Your task to perform on an android device: Clear the cart on target. Add bose soundlink mini to the cart on target, then select checkout. Image 0: 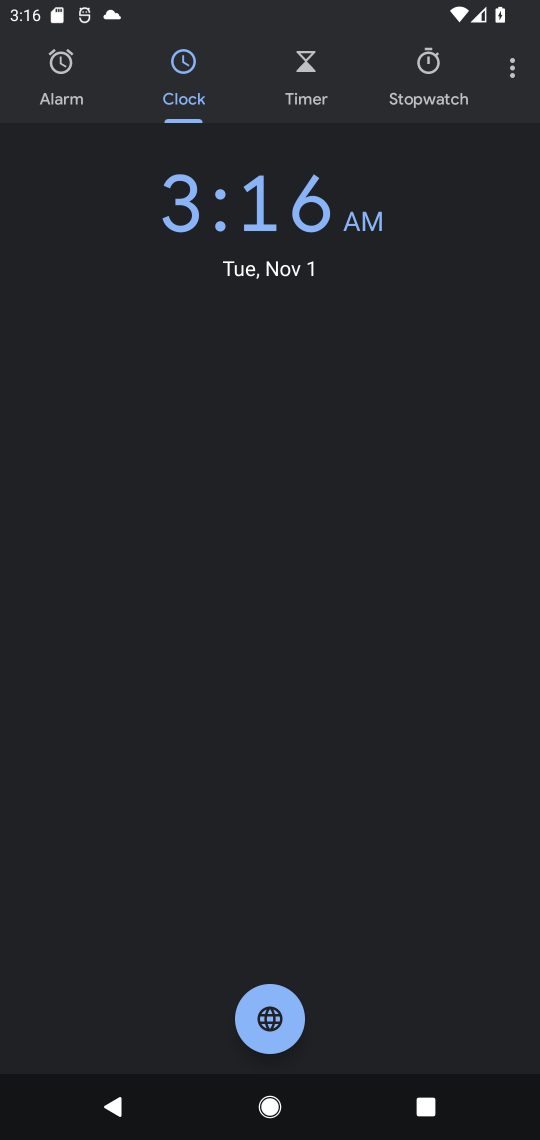
Step 0: press home button
Your task to perform on an android device: Clear the cart on target. Add bose soundlink mini to the cart on target, then select checkout. Image 1: 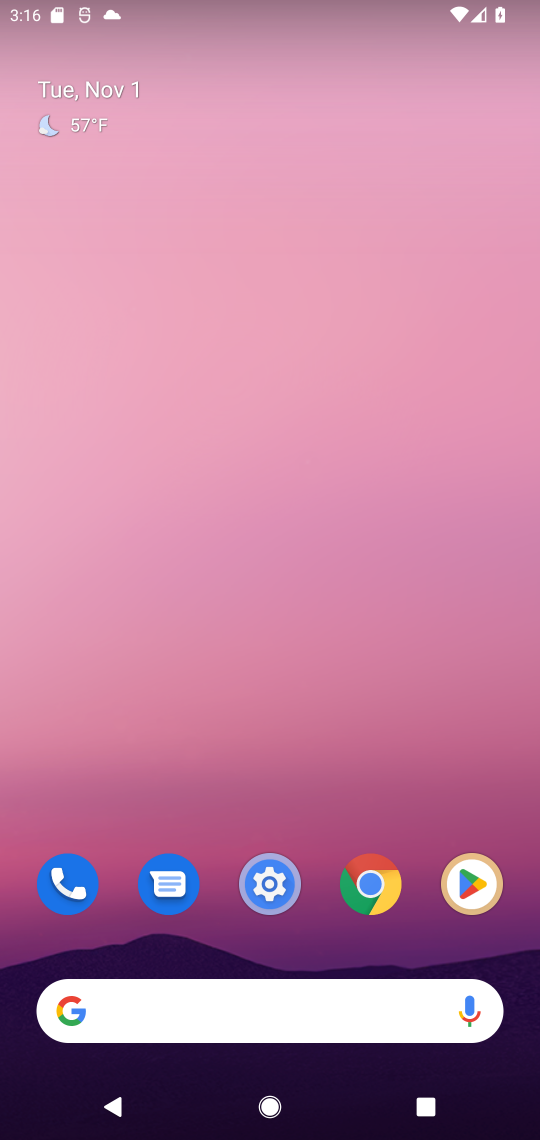
Step 1: click (103, 1011)
Your task to perform on an android device: Clear the cart on target. Add bose soundlink mini to the cart on target, then select checkout. Image 2: 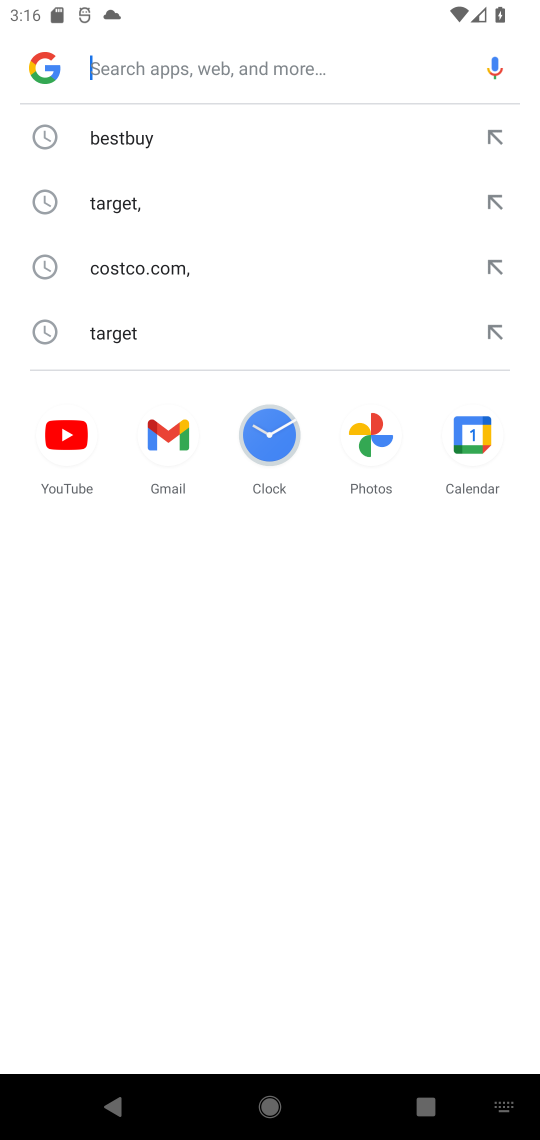
Step 2: type "target"
Your task to perform on an android device: Clear the cart on target. Add bose soundlink mini to the cart on target, then select checkout. Image 3: 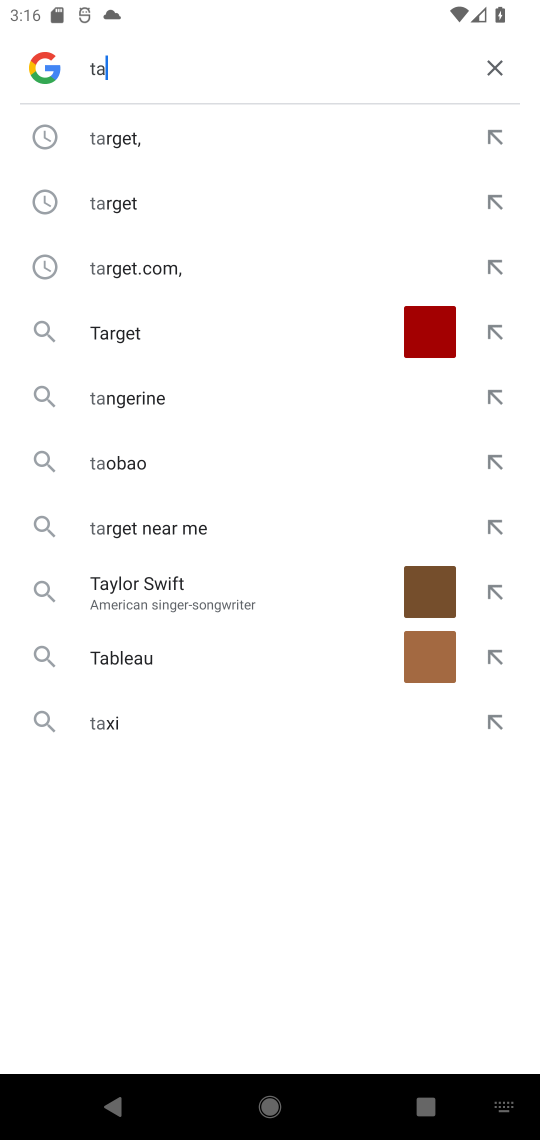
Step 3: press enter
Your task to perform on an android device: Clear the cart on target. Add bose soundlink mini to the cart on target, then select checkout. Image 4: 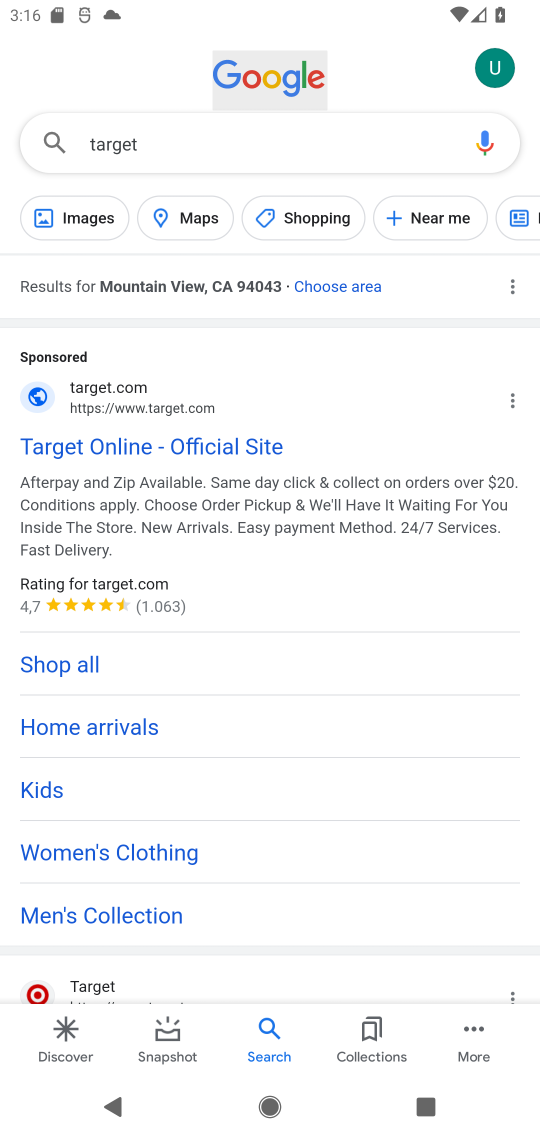
Step 4: click (110, 447)
Your task to perform on an android device: Clear the cart on target. Add bose soundlink mini to the cart on target, then select checkout. Image 5: 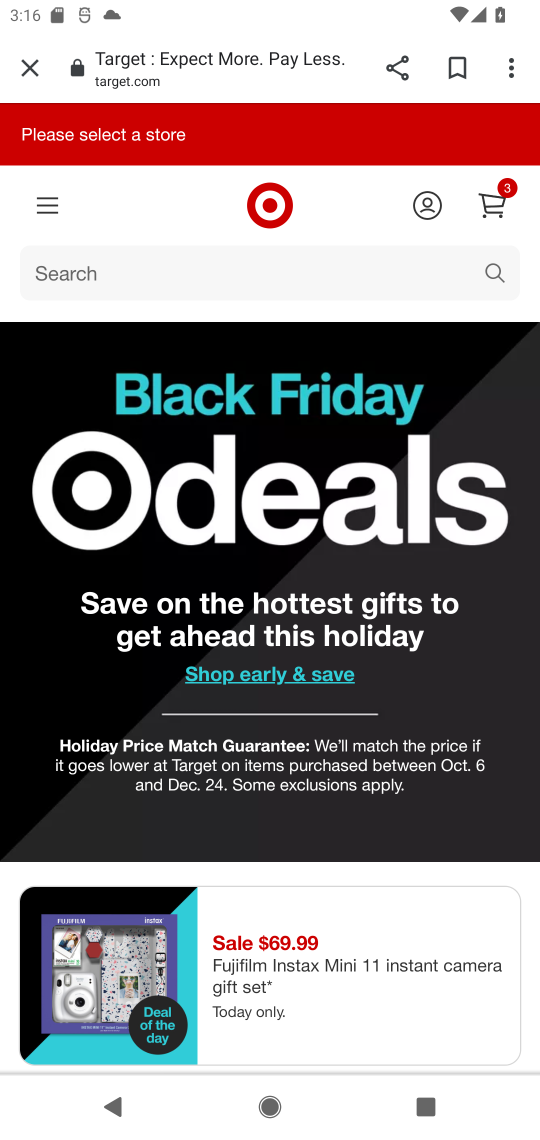
Step 5: click (70, 264)
Your task to perform on an android device: Clear the cart on target. Add bose soundlink mini to the cart on target, then select checkout. Image 6: 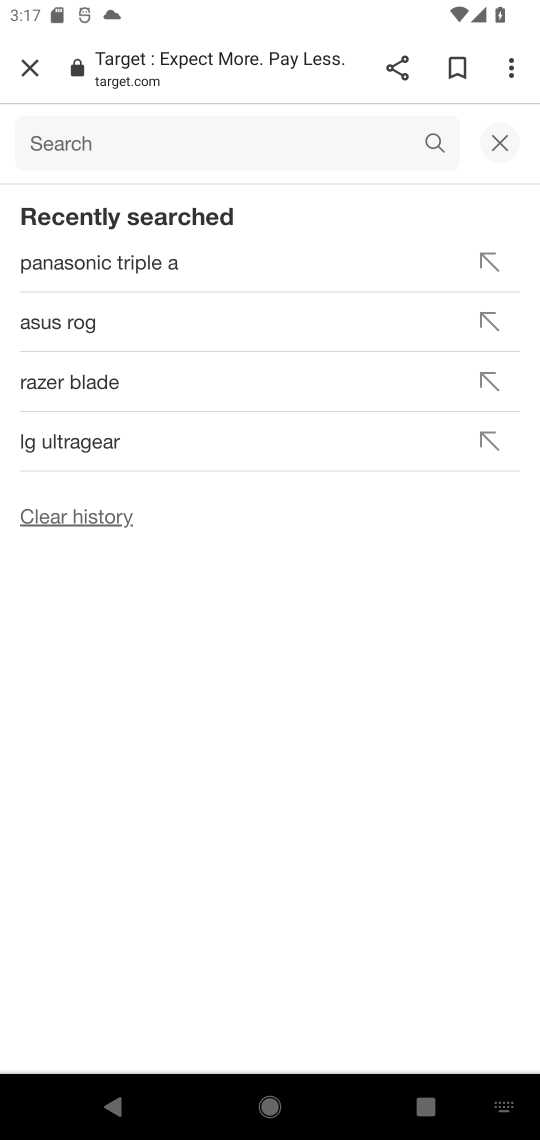
Step 6: click (497, 134)
Your task to perform on an android device: Clear the cart on target. Add bose soundlink mini to the cart on target, then select checkout. Image 7: 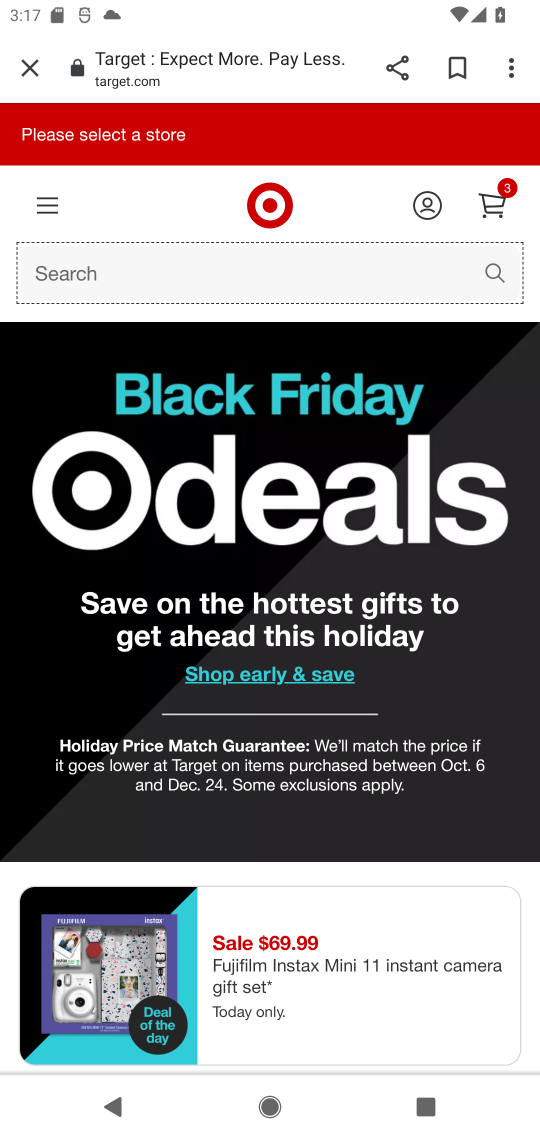
Step 7: click (495, 193)
Your task to perform on an android device: Clear the cart on target. Add bose soundlink mini to the cart on target, then select checkout. Image 8: 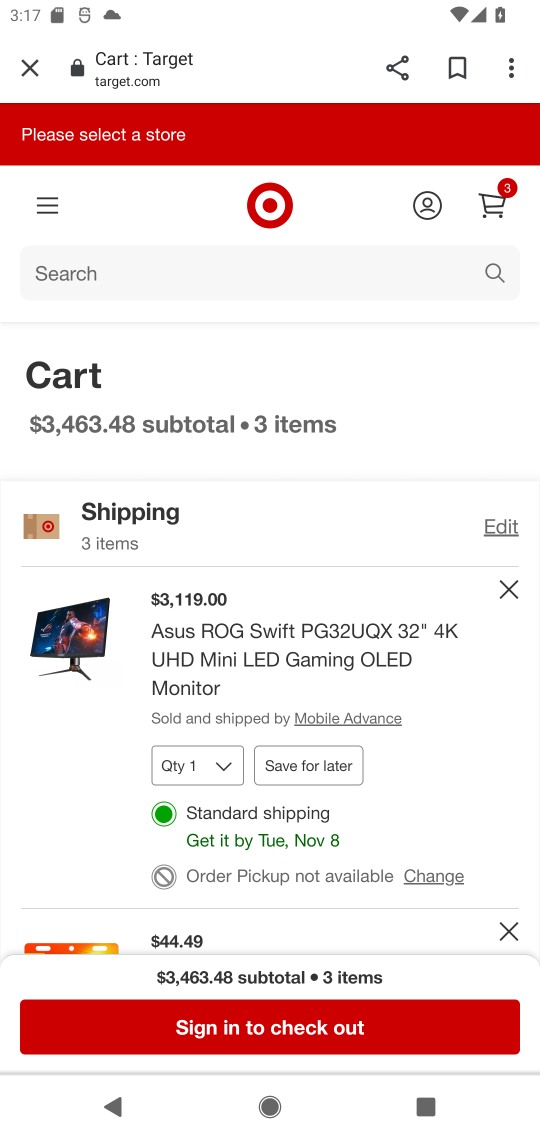
Step 8: click (509, 583)
Your task to perform on an android device: Clear the cart on target. Add bose soundlink mini to the cart on target, then select checkout. Image 9: 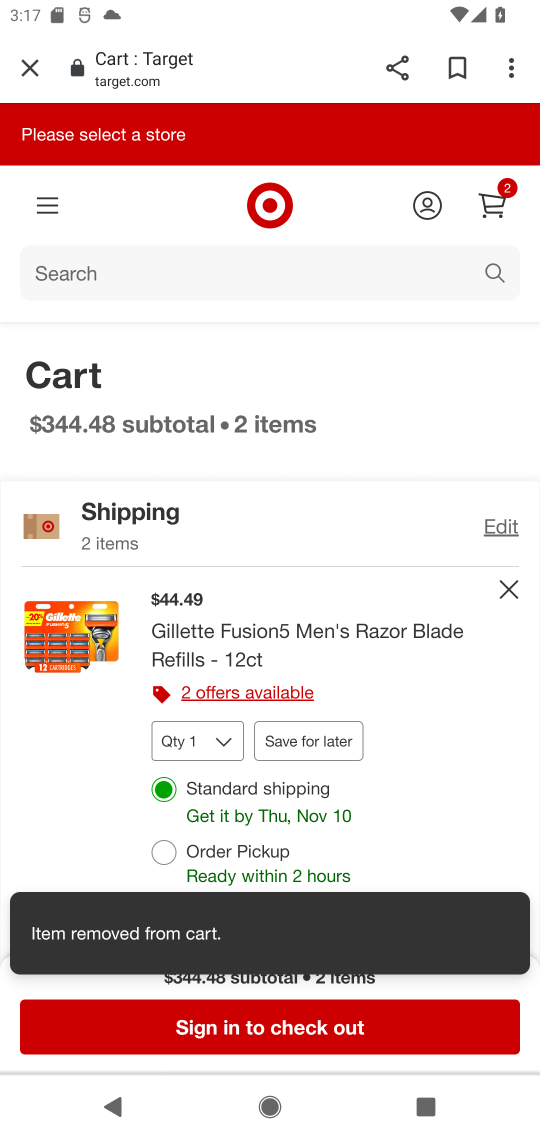
Step 9: click (509, 583)
Your task to perform on an android device: Clear the cart on target. Add bose soundlink mini to the cart on target, then select checkout. Image 10: 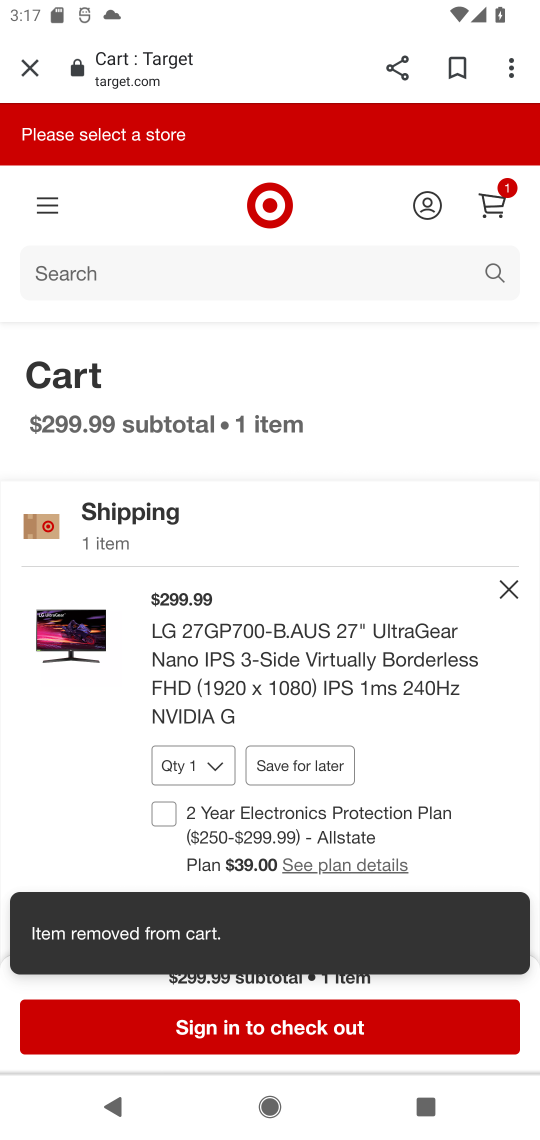
Step 10: click (509, 583)
Your task to perform on an android device: Clear the cart on target. Add bose soundlink mini to the cart on target, then select checkout. Image 11: 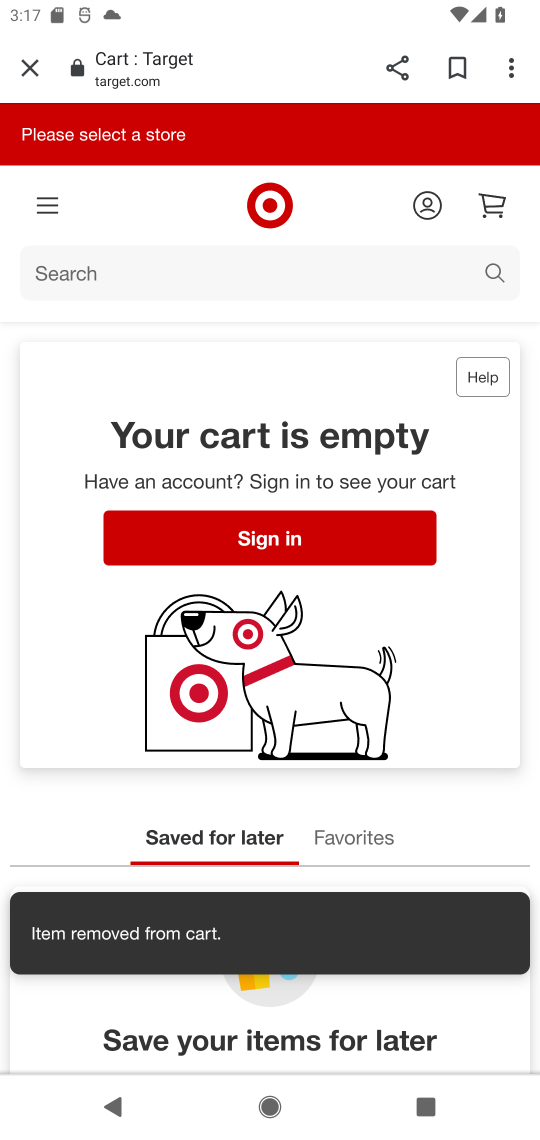
Step 11: click (139, 268)
Your task to perform on an android device: Clear the cart on target. Add bose soundlink mini to the cart on target, then select checkout. Image 12: 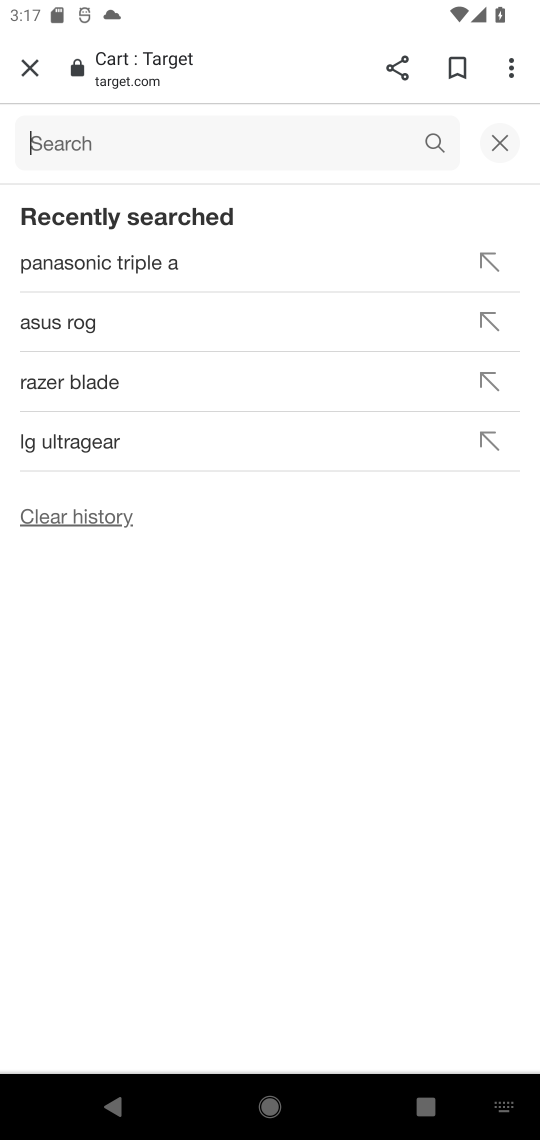
Step 12: type "bose soundlink mini "
Your task to perform on an android device: Clear the cart on target. Add bose soundlink mini to the cart on target, then select checkout. Image 13: 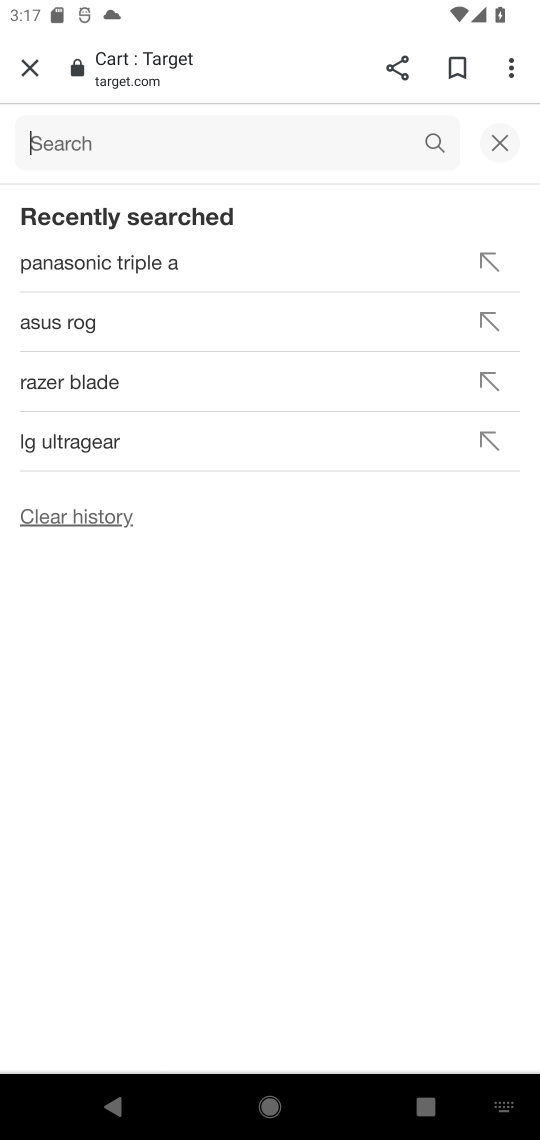
Step 13: press enter
Your task to perform on an android device: Clear the cart on target. Add bose soundlink mini to the cart on target, then select checkout. Image 14: 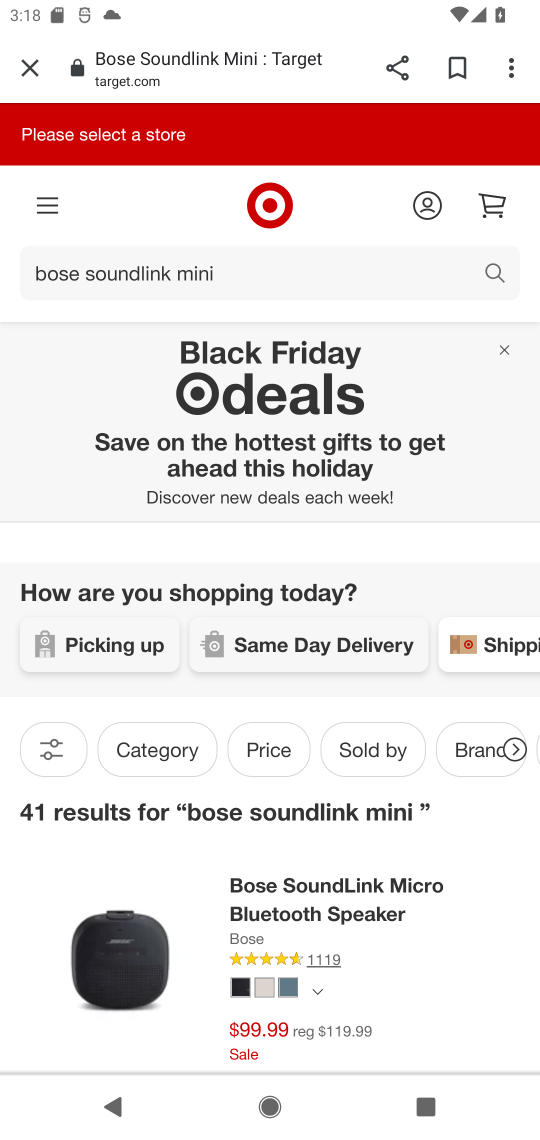
Step 14: drag from (352, 943) to (319, 583)
Your task to perform on an android device: Clear the cart on target. Add bose soundlink mini to the cart on target, then select checkout. Image 15: 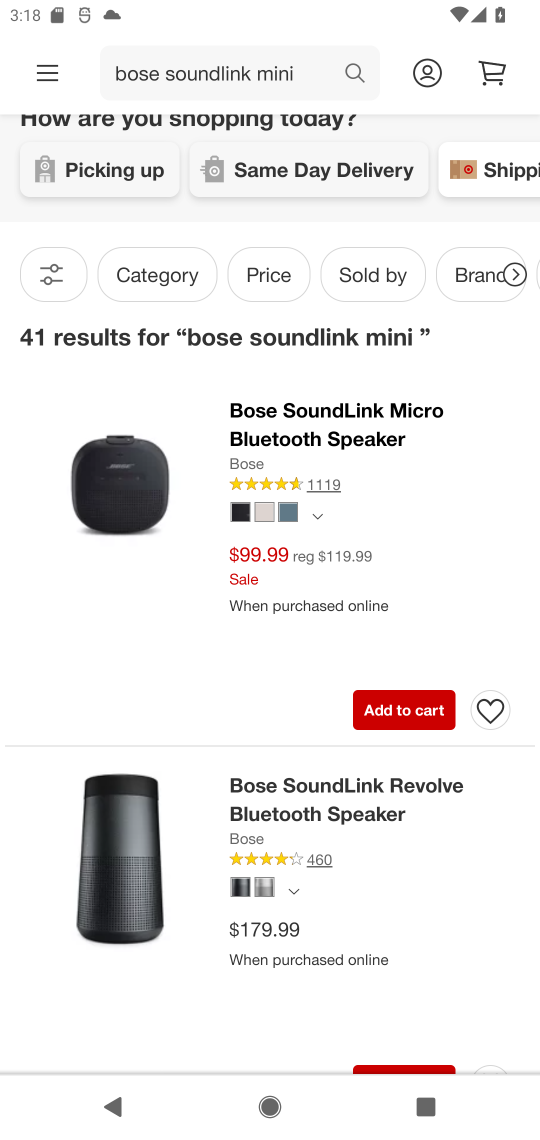
Step 15: click (386, 710)
Your task to perform on an android device: Clear the cart on target. Add bose soundlink mini to the cart on target, then select checkout. Image 16: 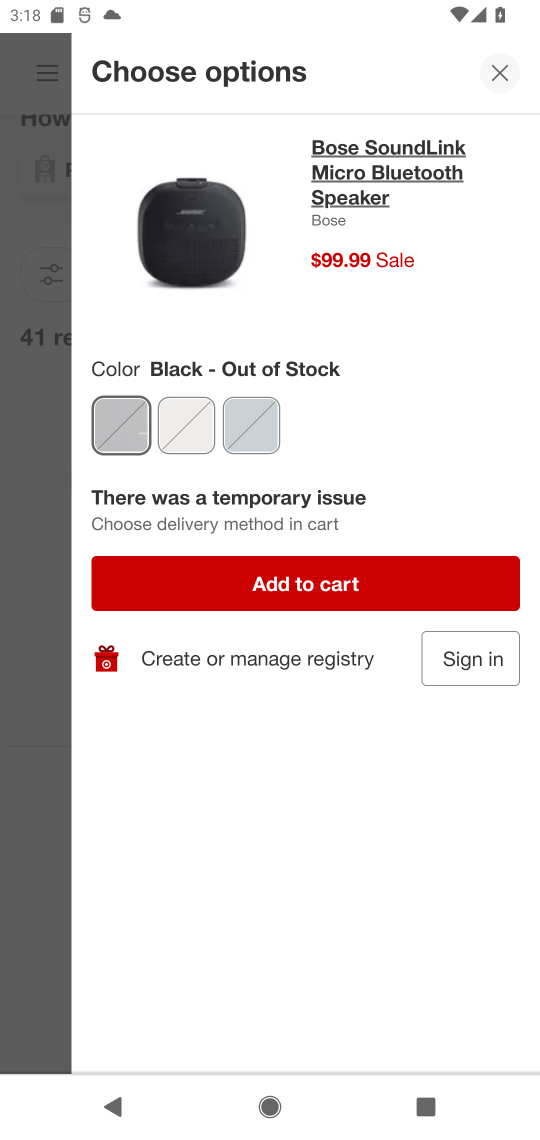
Step 16: click (332, 588)
Your task to perform on an android device: Clear the cart on target. Add bose soundlink mini to the cart on target, then select checkout. Image 17: 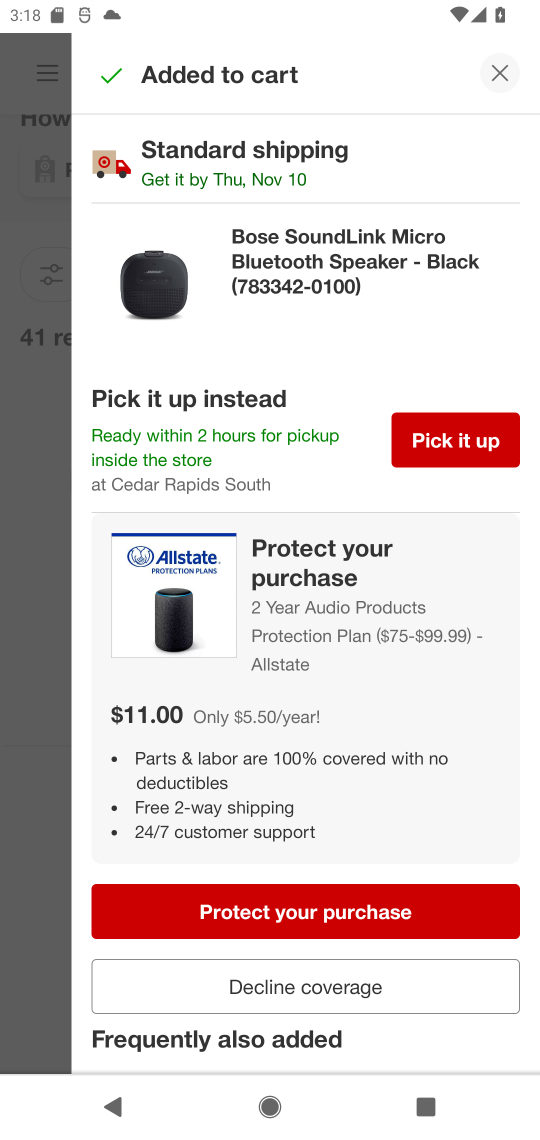
Step 17: click (382, 915)
Your task to perform on an android device: Clear the cart on target. Add bose soundlink mini to the cart on target, then select checkout. Image 18: 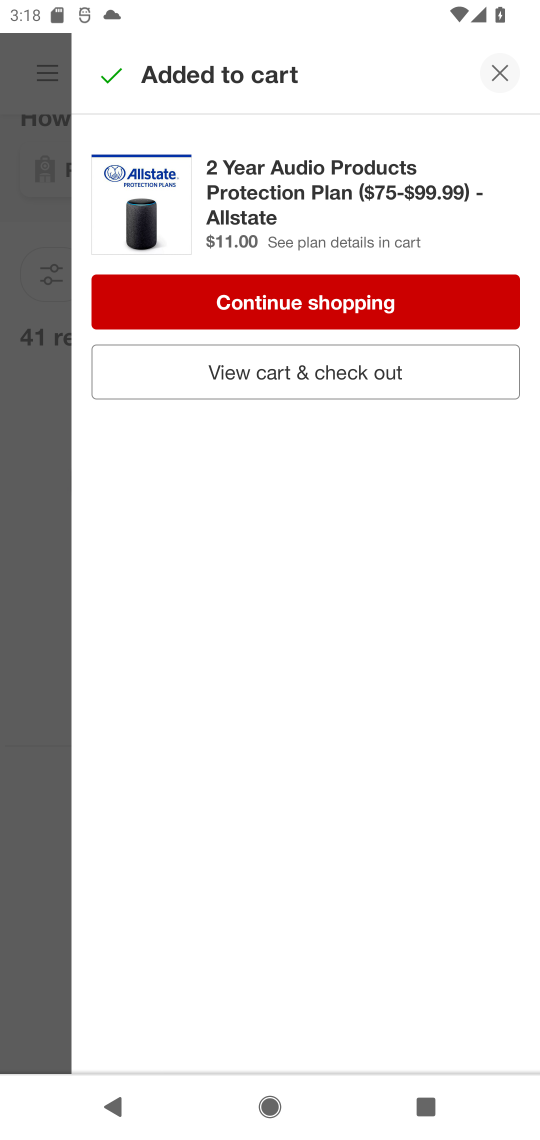
Step 18: click (357, 373)
Your task to perform on an android device: Clear the cart on target. Add bose soundlink mini to the cart on target, then select checkout. Image 19: 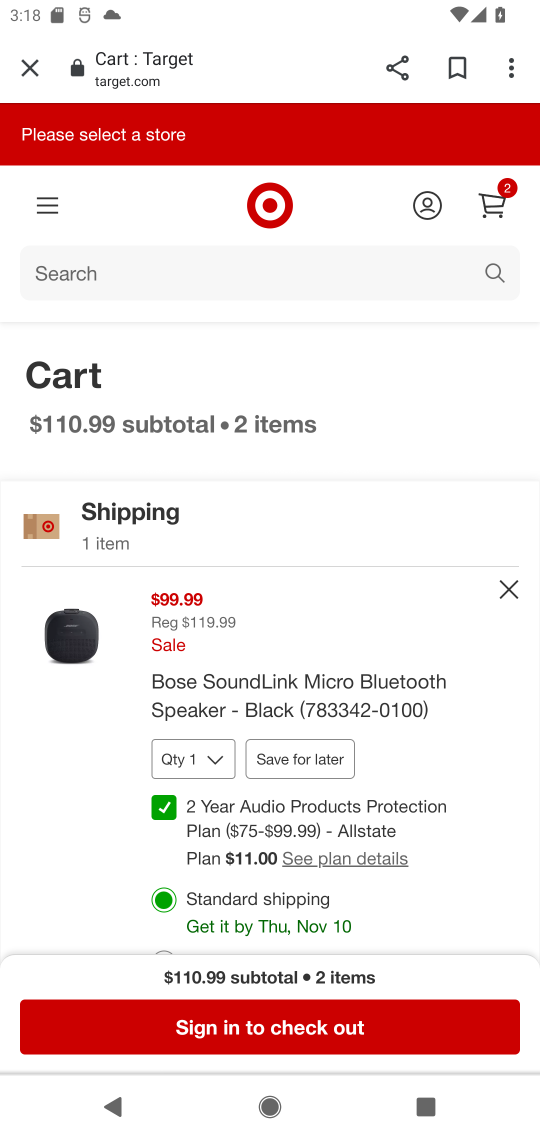
Step 19: click (356, 1027)
Your task to perform on an android device: Clear the cart on target. Add bose soundlink mini to the cart on target, then select checkout. Image 20: 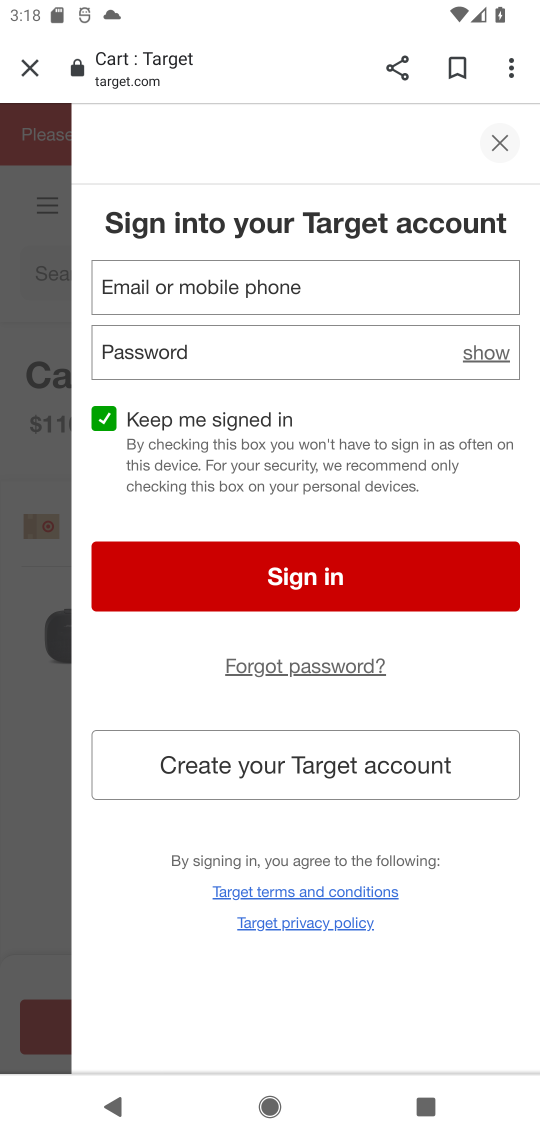
Step 20: task complete